Your task to perform on an android device: Turn off the flashlight Image 0: 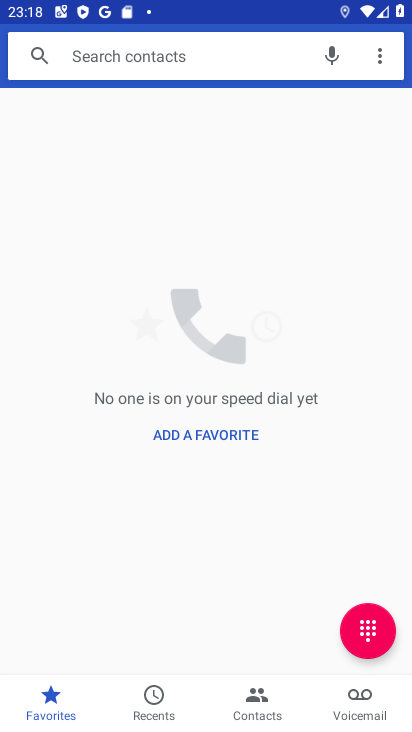
Step 0: press home button
Your task to perform on an android device: Turn off the flashlight Image 1: 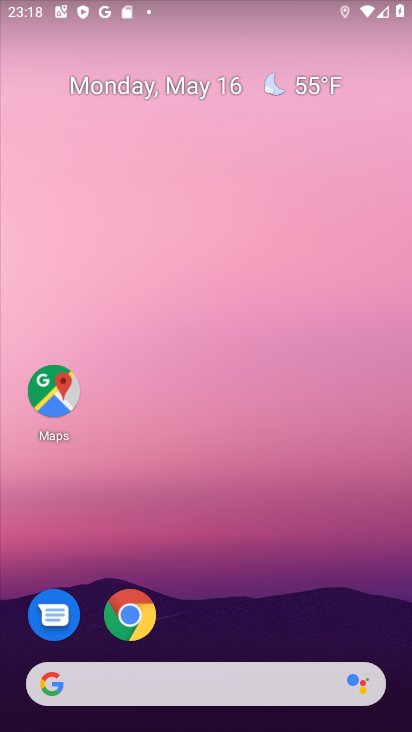
Step 1: drag from (195, 650) to (110, 7)
Your task to perform on an android device: Turn off the flashlight Image 2: 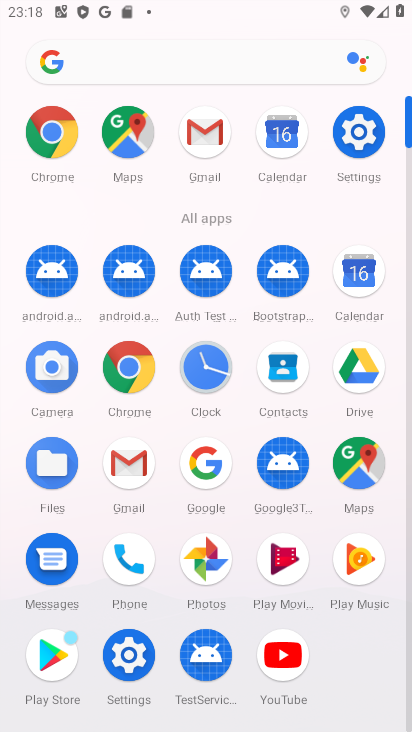
Step 2: click (352, 124)
Your task to perform on an android device: Turn off the flashlight Image 3: 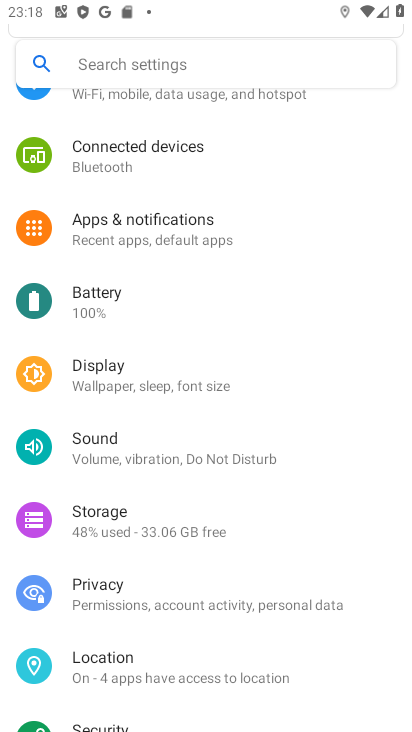
Step 3: task complete